Your task to perform on an android device: choose inbox layout in the gmail app Image 0: 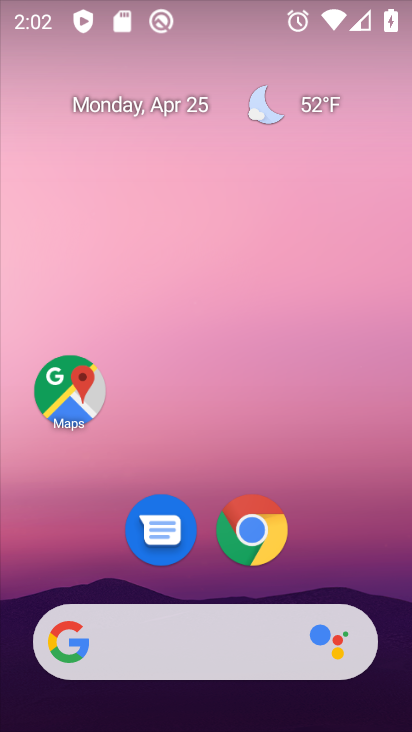
Step 0: drag from (369, 563) to (355, 206)
Your task to perform on an android device: choose inbox layout in the gmail app Image 1: 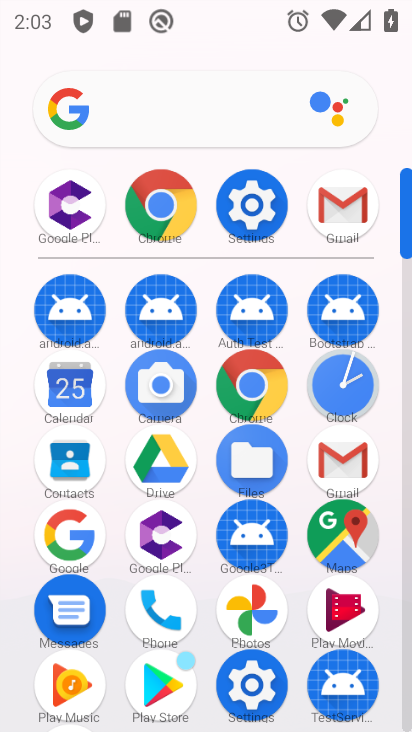
Step 1: click (321, 458)
Your task to perform on an android device: choose inbox layout in the gmail app Image 2: 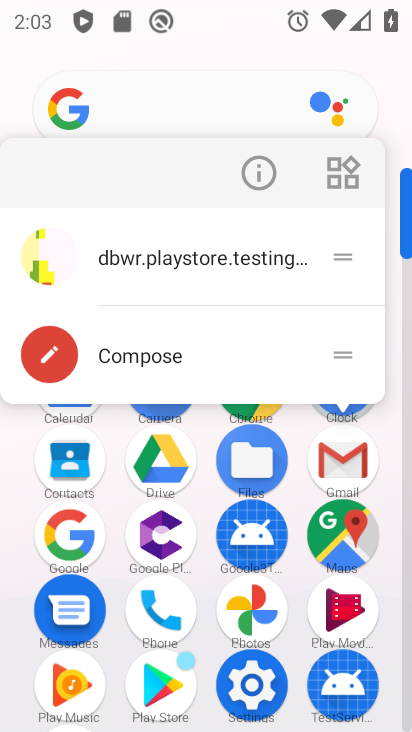
Step 2: click (325, 462)
Your task to perform on an android device: choose inbox layout in the gmail app Image 3: 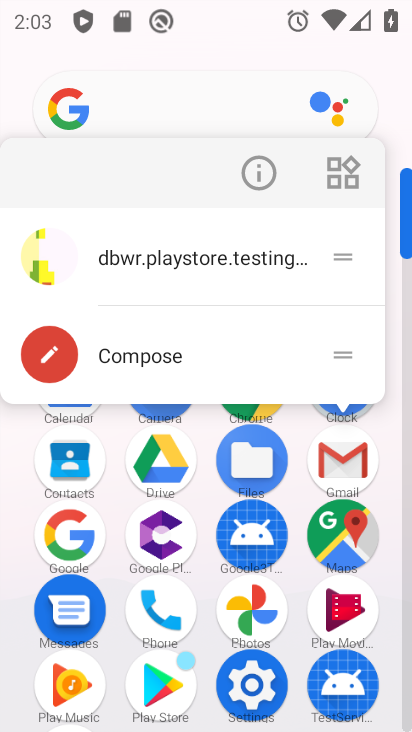
Step 3: click (332, 472)
Your task to perform on an android device: choose inbox layout in the gmail app Image 4: 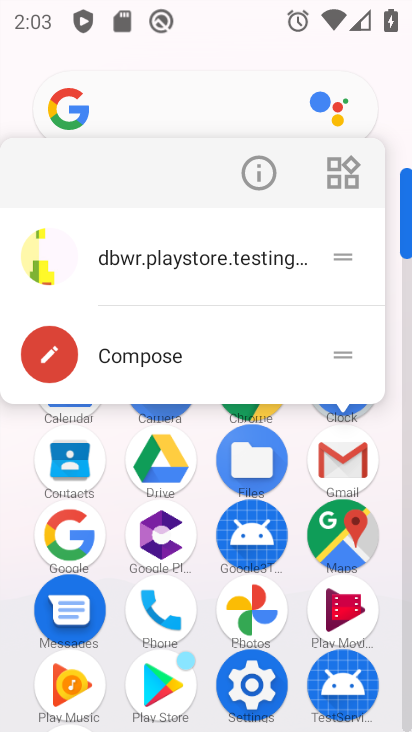
Step 4: drag from (364, 478) to (361, 521)
Your task to perform on an android device: choose inbox layout in the gmail app Image 5: 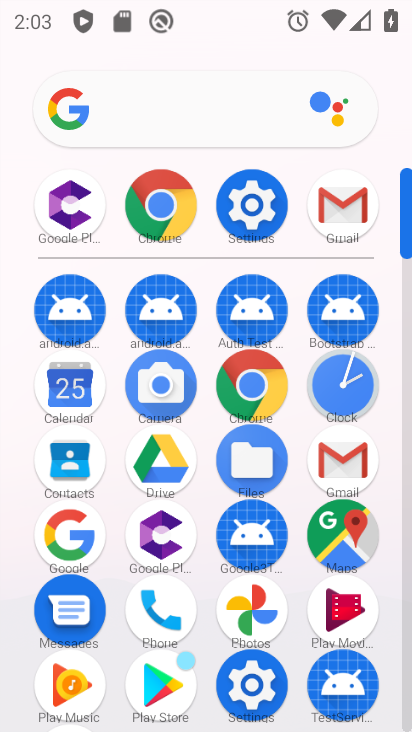
Step 5: click (359, 479)
Your task to perform on an android device: choose inbox layout in the gmail app Image 6: 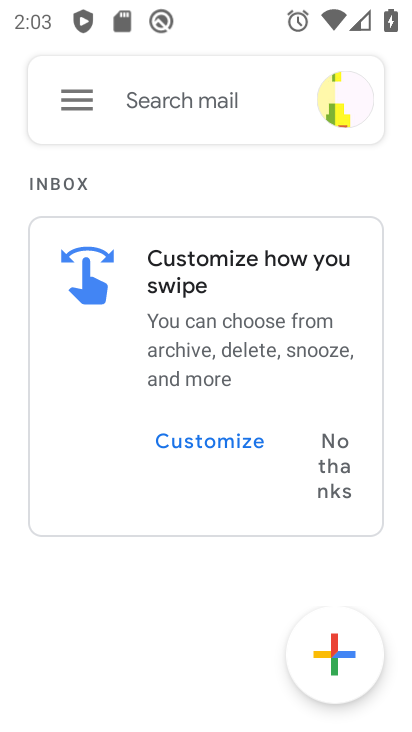
Step 6: click (74, 96)
Your task to perform on an android device: choose inbox layout in the gmail app Image 7: 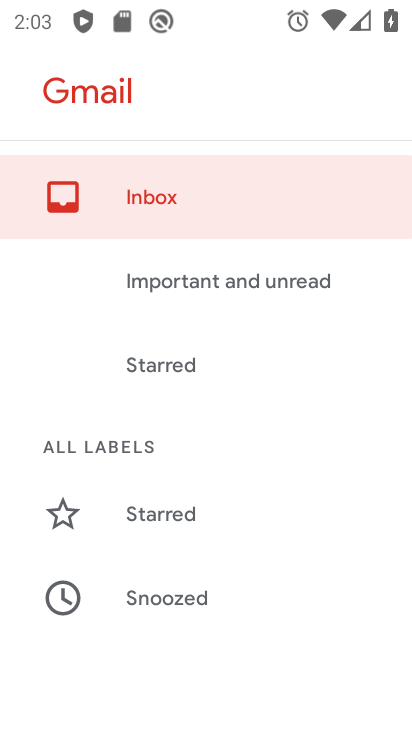
Step 7: drag from (253, 552) to (295, 209)
Your task to perform on an android device: choose inbox layout in the gmail app Image 8: 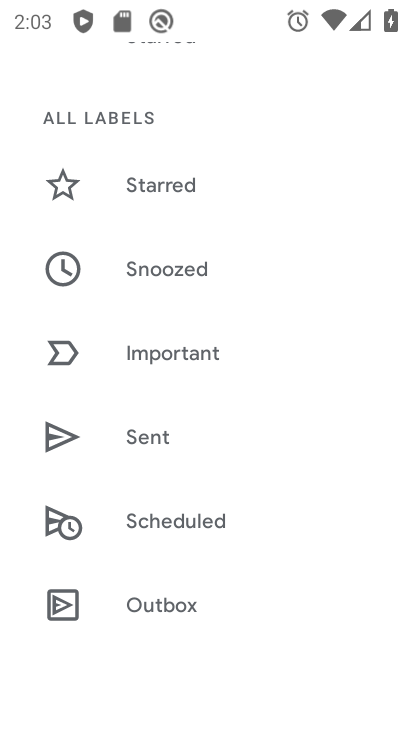
Step 8: drag from (265, 589) to (317, 288)
Your task to perform on an android device: choose inbox layout in the gmail app Image 9: 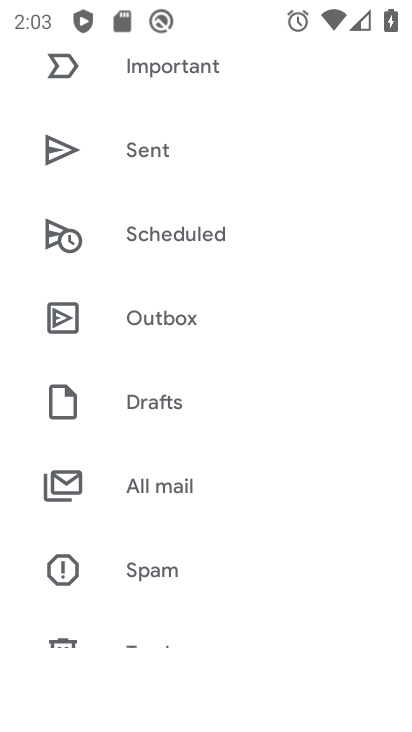
Step 9: drag from (223, 581) to (241, 238)
Your task to perform on an android device: choose inbox layout in the gmail app Image 10: 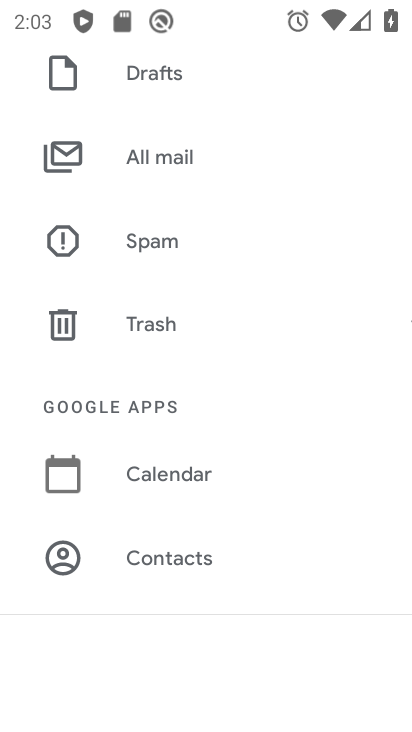
Step 10: drag from (237, 538) to (284, 235)
Your task to perform on an android device: choose inbox layout in the gmail app Image 11: 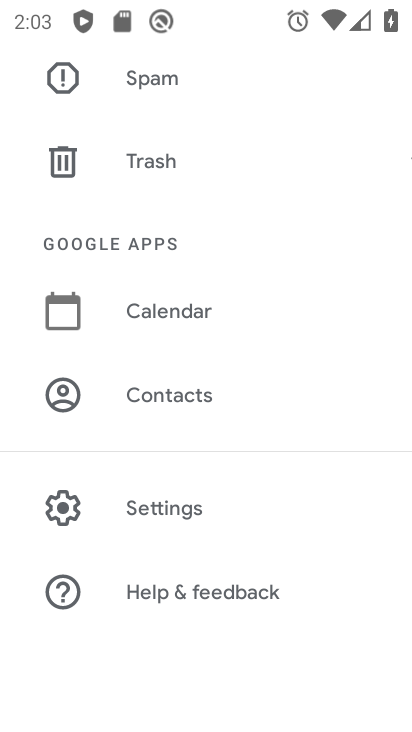
Step 11: click (141, 511)
Your task to perform on an android device: choose inbox layout in the gmail app Image 12: 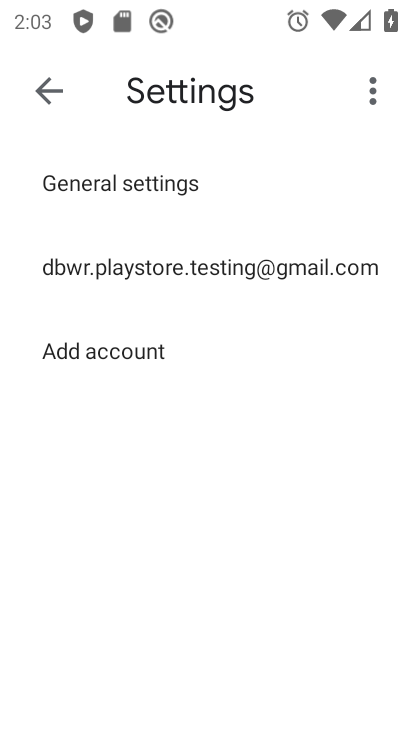
Step 12: click (227, 278)
Your task to perform on an android device: choose inbox layout in the gmail app Image 13: 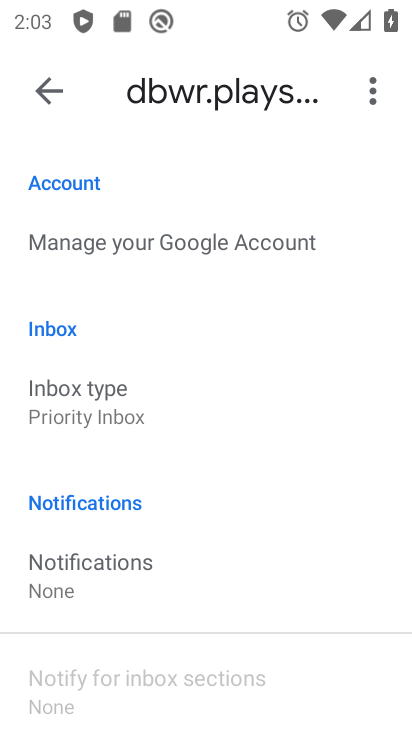
Step 13: drag from (223, 645) to (267, 305)
Your task to perform on an android device: choose inbox layout in the gmail app Image 14: 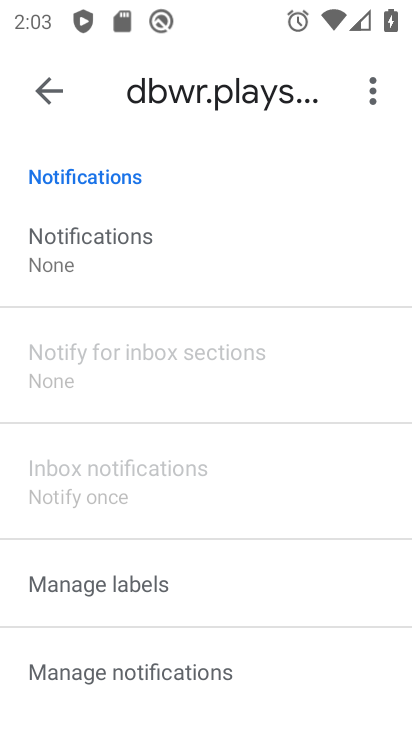
Step 14: drag from (248, 248) to (218, 544)
Your task to perform on an android device: choose inbox layout in the gmail app Image 15: 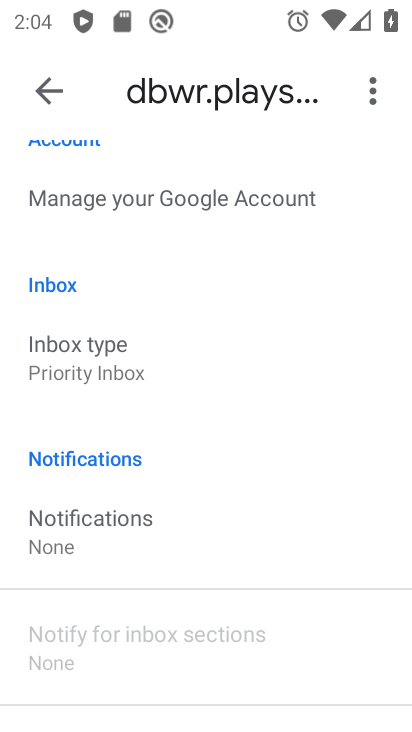
Step 15: click (138, 365)
Your task to perform on an android device: choose inbox layout in the gmail app Image 16: 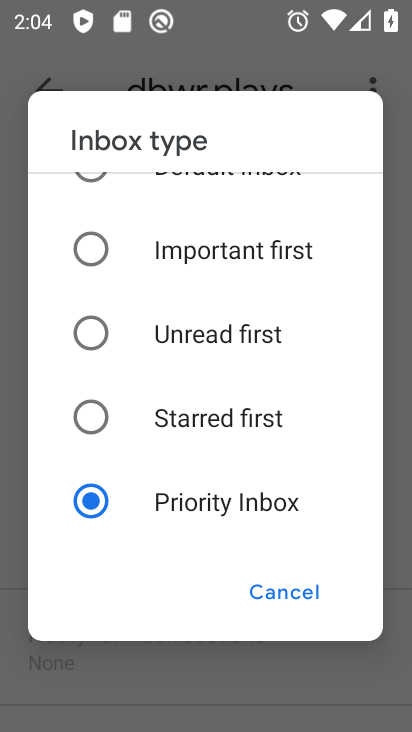
Step 16: click (122, 399)
Your task to perform on an android device: choose inbox layout in the gmail app Image 17: 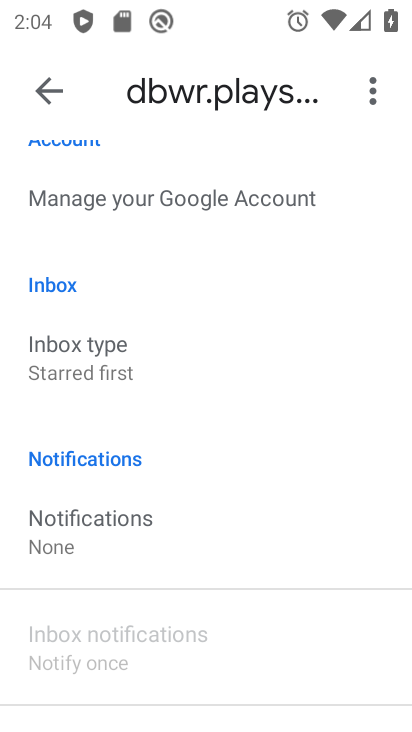
Step 17: task complete